Your task to perform on an android device: Open the phone app and click the voicemail tab. Image 0: 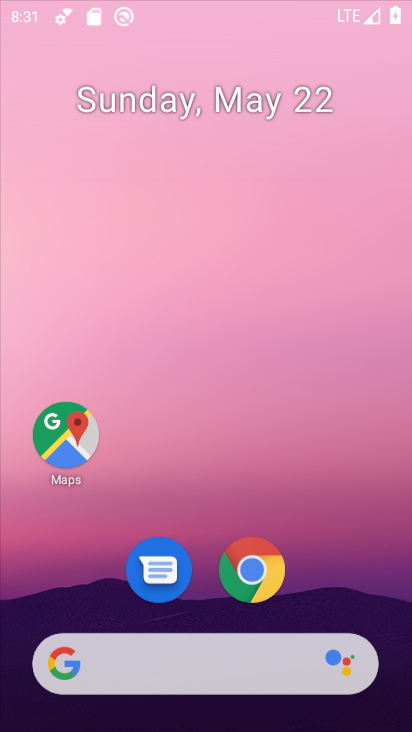
Step 0: drag from (172, 667) to (284, 35)
Your task to perform on an android device: Open the phone app and click the voicemail tab. Image 1: 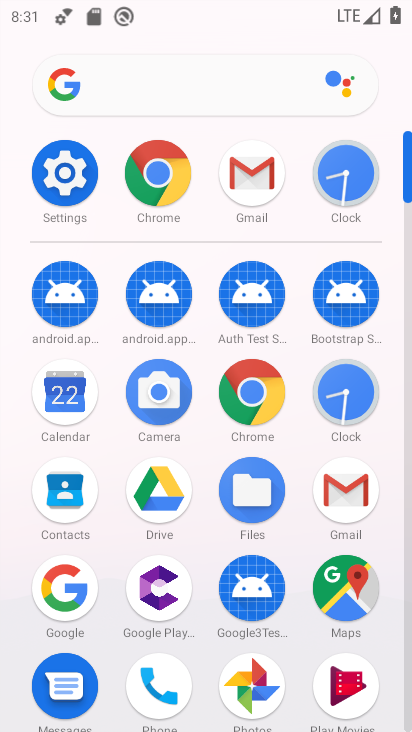
Step 1: click (172, 667)
Your task to perform on an android device: Open the phone app and click the voicemail tab. Image 2: 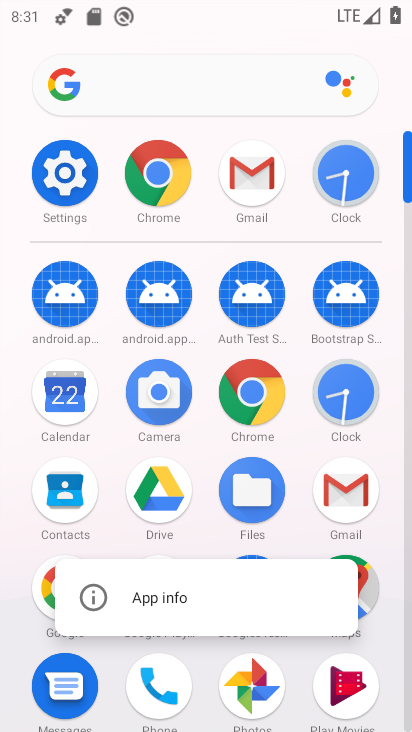
Step 2: click (120, 620)
Your task to perform on an android device: Open the phone app and click the voicemail tab. Image 3: 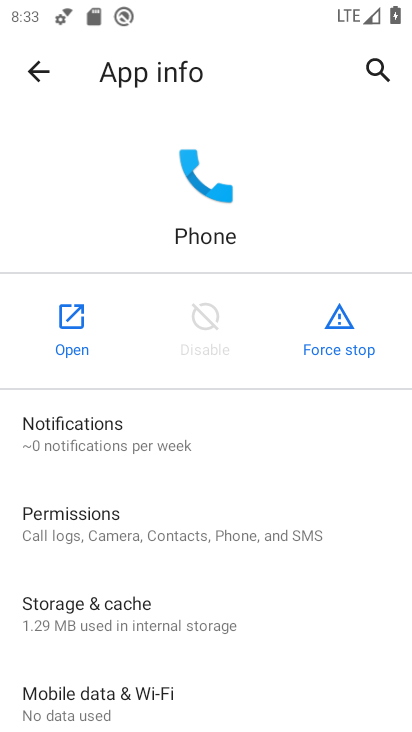
Step 3: click (89, 345)
Your task to perform on an android device: Open the phone app and click the voicemail tab. Image 4: 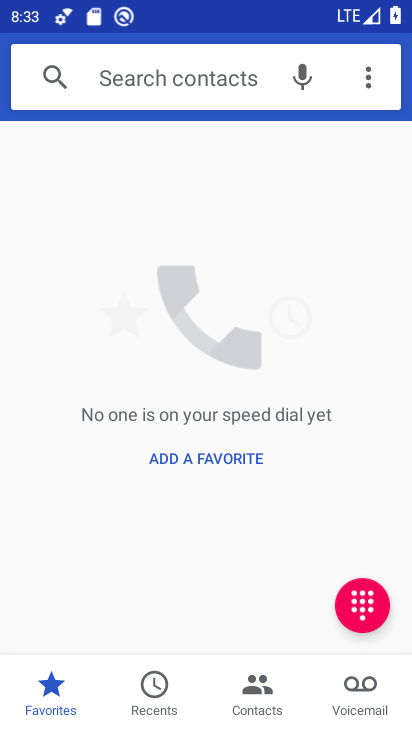
Step 4: click (338, 697)
Your task to perform on an android device: Open the phone app and click the voicemail tab. Image 5: 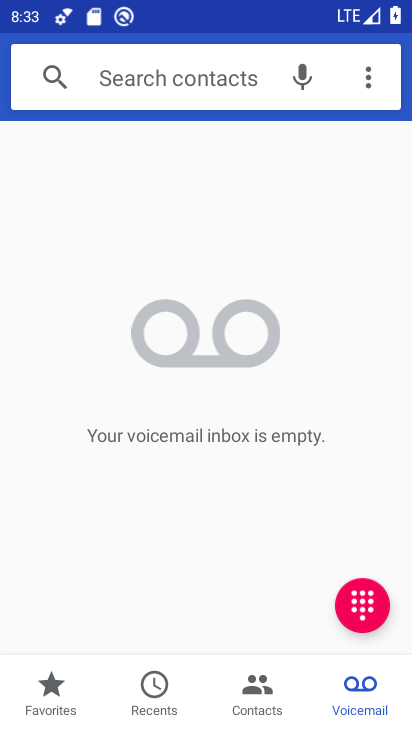
Step 5: task complete